Your task to perform on an android device: open app "Messenger Lite" (install if not already installed) Image 0: 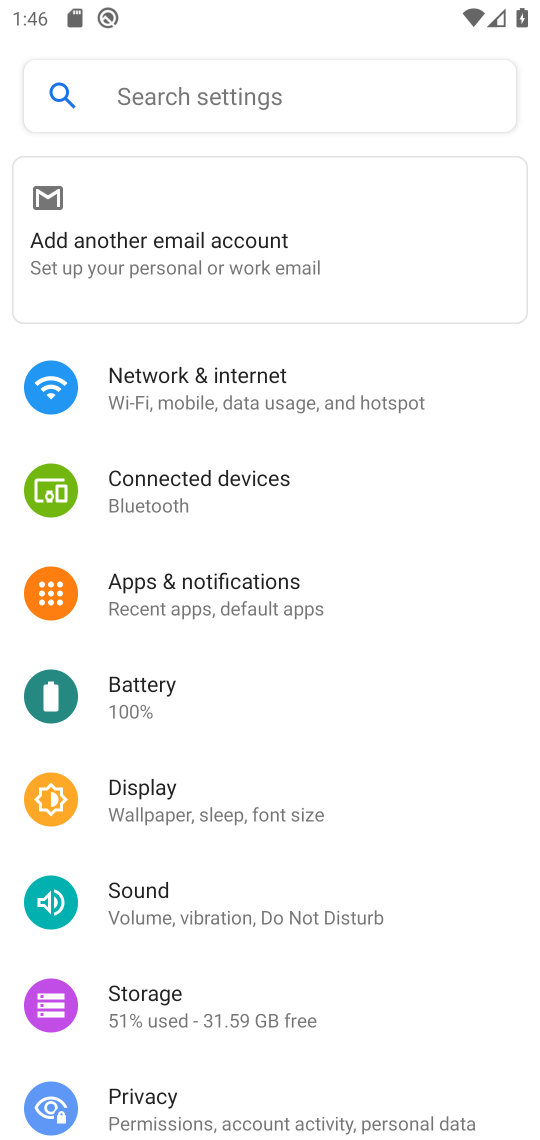
Step 0: press home button
Your task to perform on an android device: open app "Messenger Lite" (install if not already installed) Image 1: 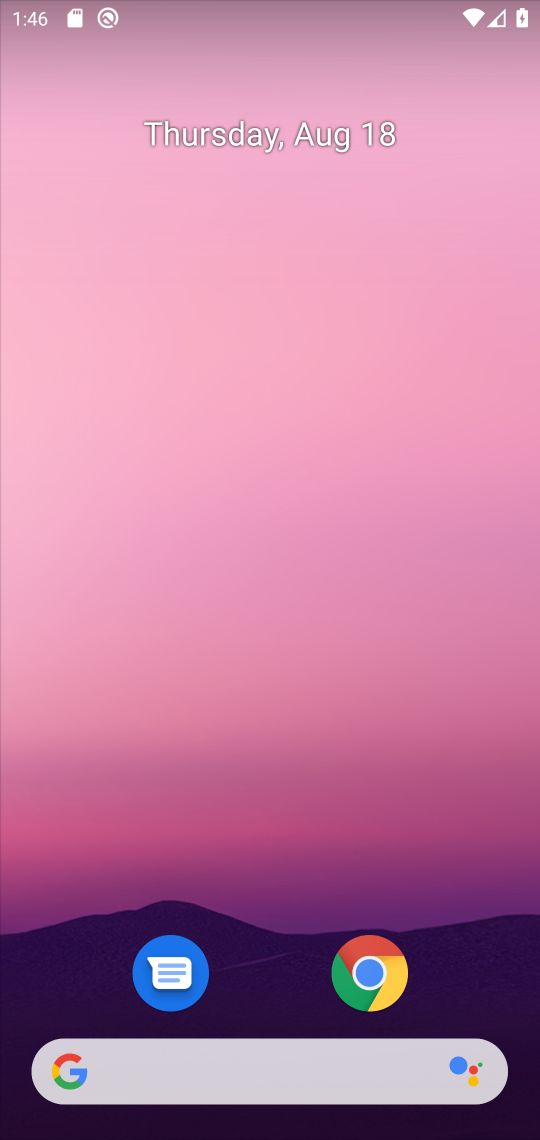
Step 1: drag from (290, 1014) to (305, 156)
Your task to perform on an android device: open app "Messenger Lite" (install if not already installed) Image 2: 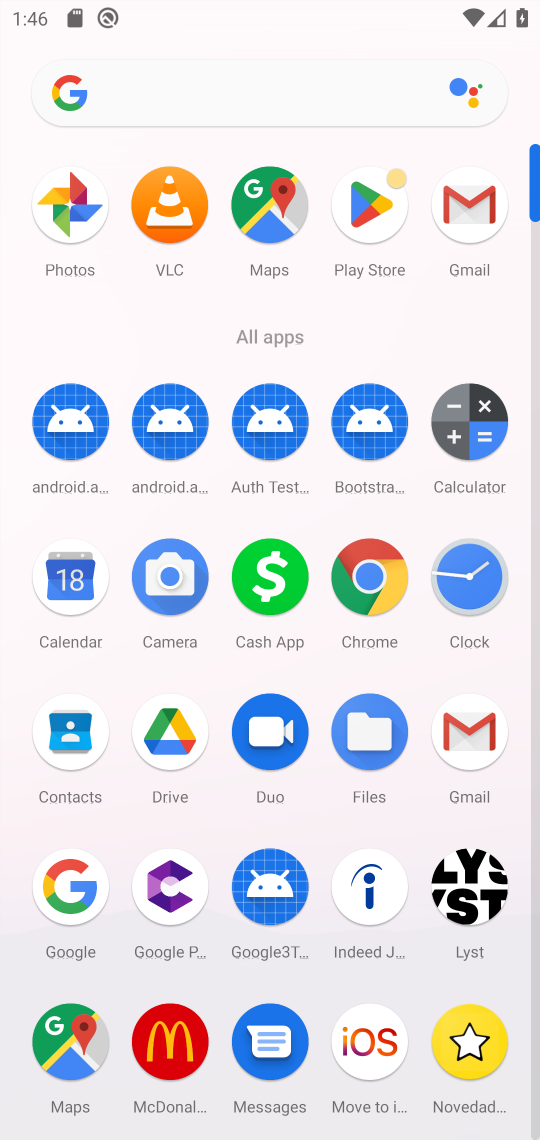
Step 2: click (349, 242)
Your task to perform on an android device: open app "Messenger Lite" (install if not already installed) Image 3: 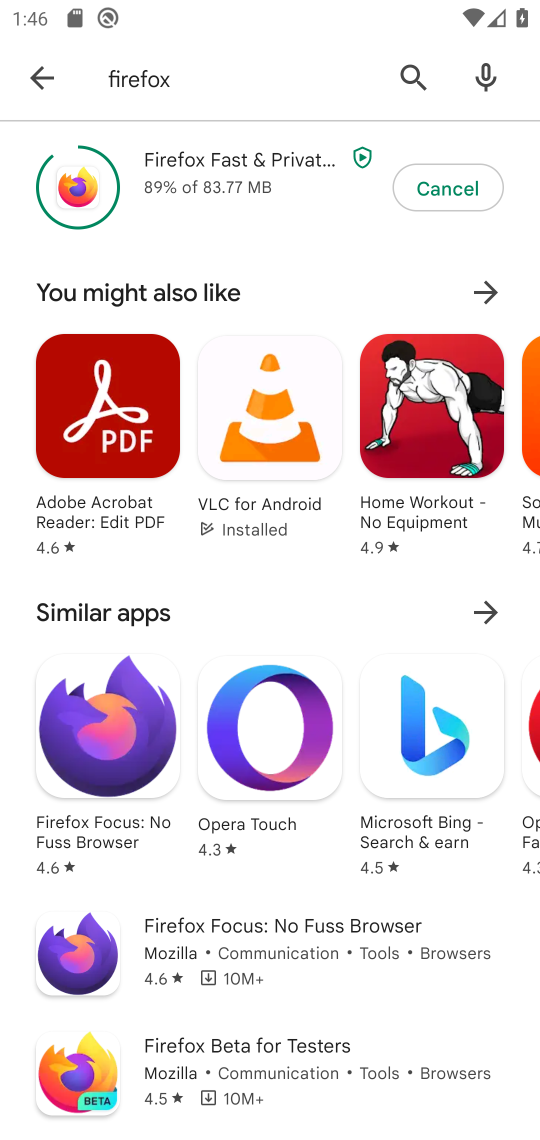
Step 3: click (405, 91)
Your task to perform on an android device: open app "Messenger Lite" (install if not already installed) Image 4: 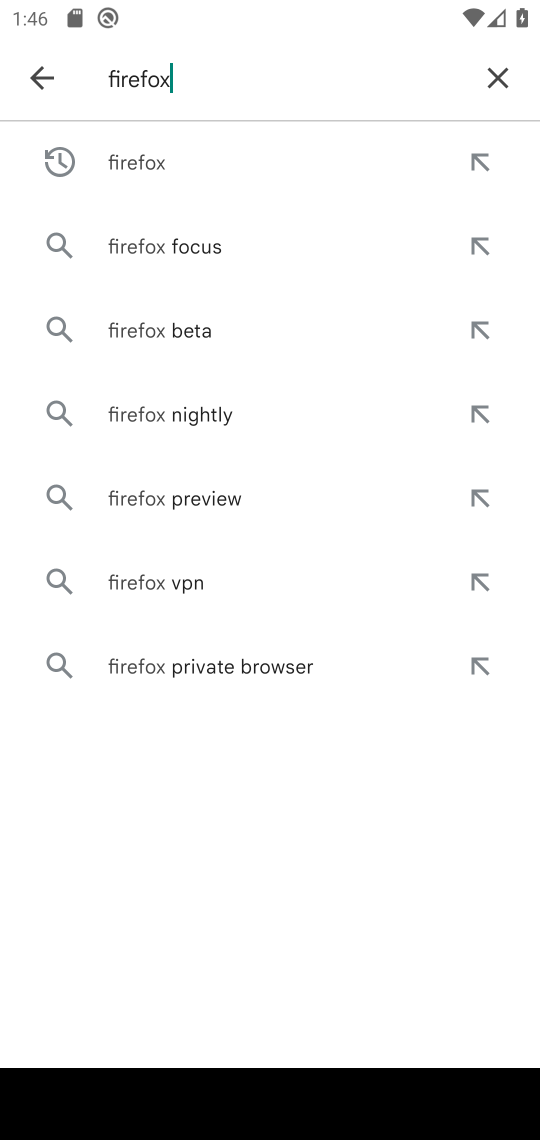
Step 4: click (500, 91)
Your task to perform on an android device: open app "Messenger Lite" (install if not already installed) Image 5: 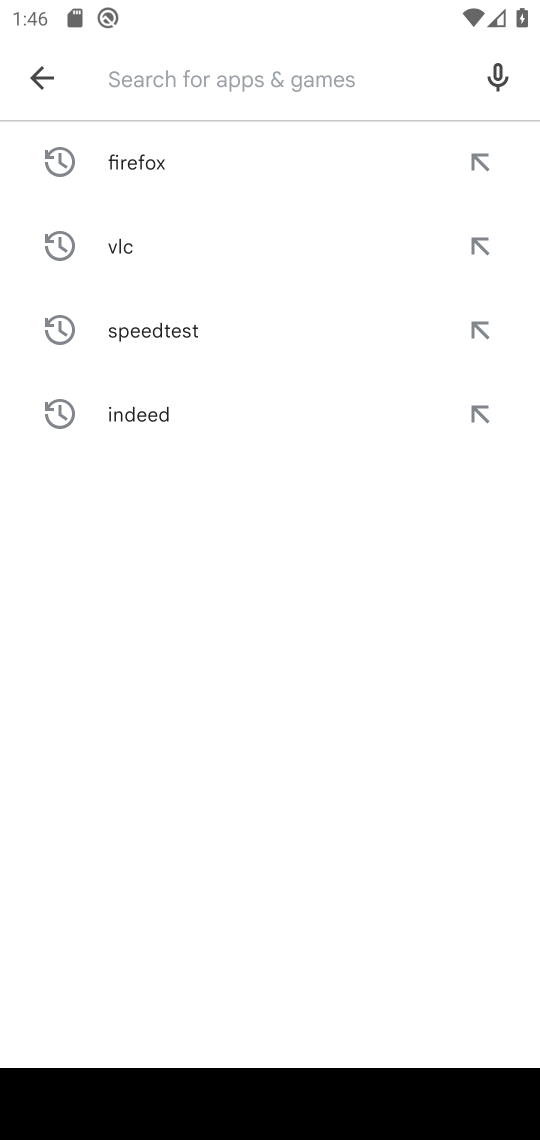
Step 5: type "messenger"
Your task to perform on an android device: open app "Messenger Lite" (install if not already installed) Image 6: 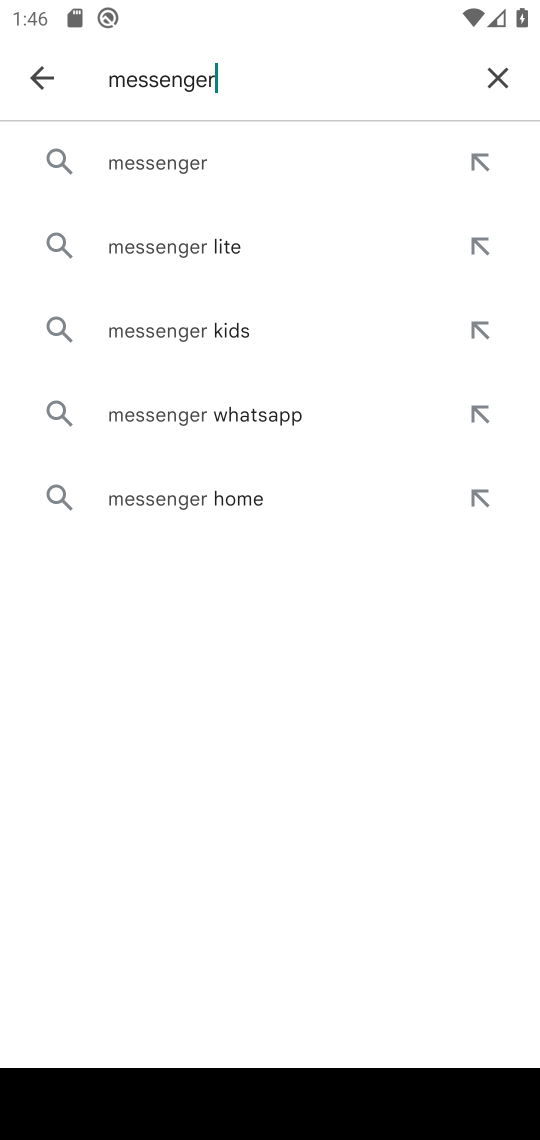
Step 6: click (300, 172)
Your task to perform on an android device: open app "Messenger Lite" (install if not already installed) Image 7: 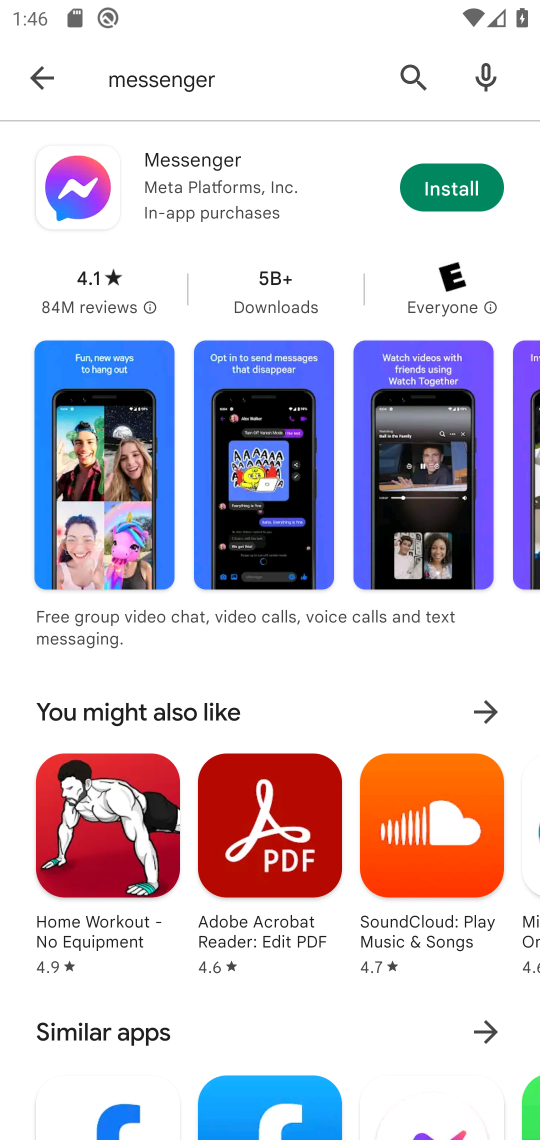
Step 7: click (467, 205)
Your task to perform on an android device: open app "Messenger Lite" (install if not already installed) Image 8: 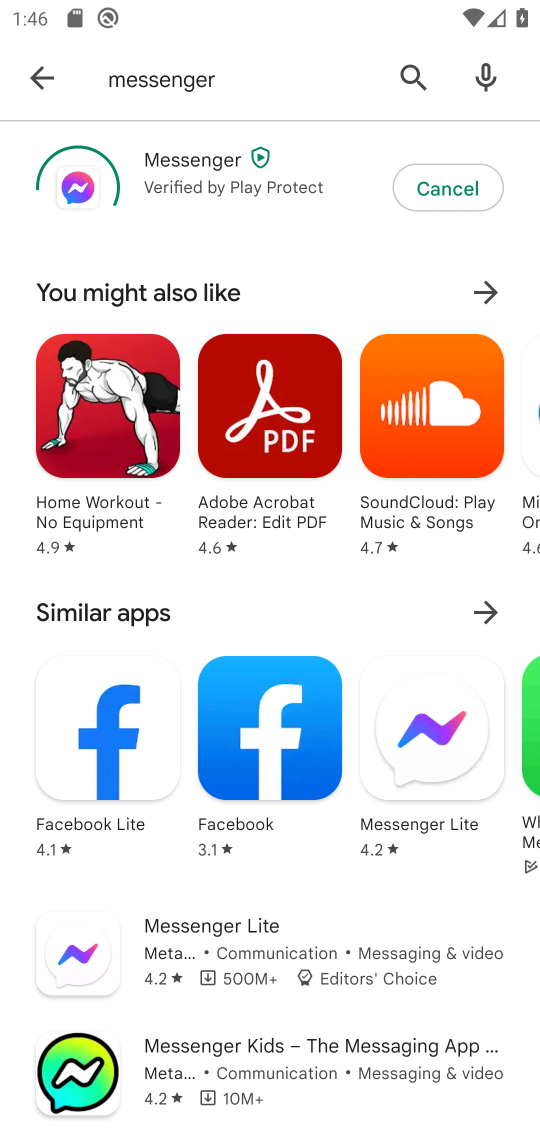
Step 8: task complete